Your task to perform on an android device: add a label to a message in the gmail app Image 0: 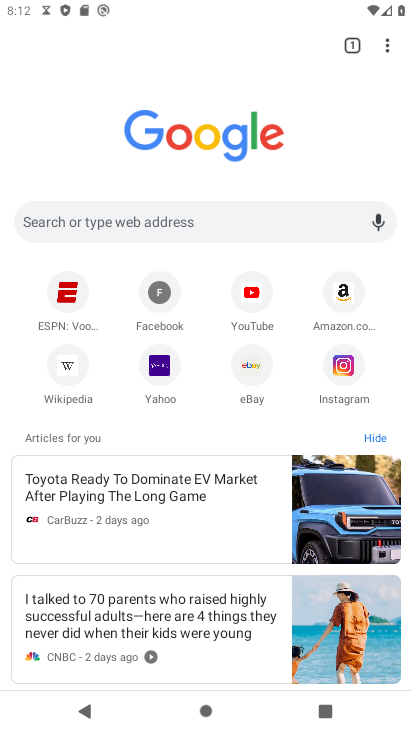
Step 0: press home button
Your task to perform on an android device: add a label to a message in the gmail app Image 1: 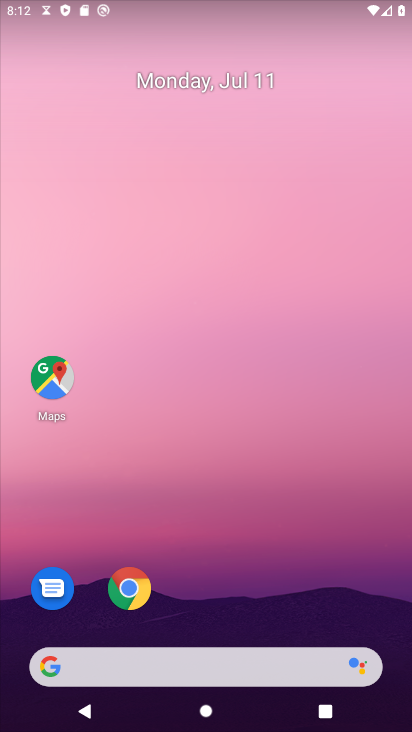
Step 1: drag from (292, 585) to (252, 336)
Your task to perform on an android device: add a label to a message in the gmail app Image 2: 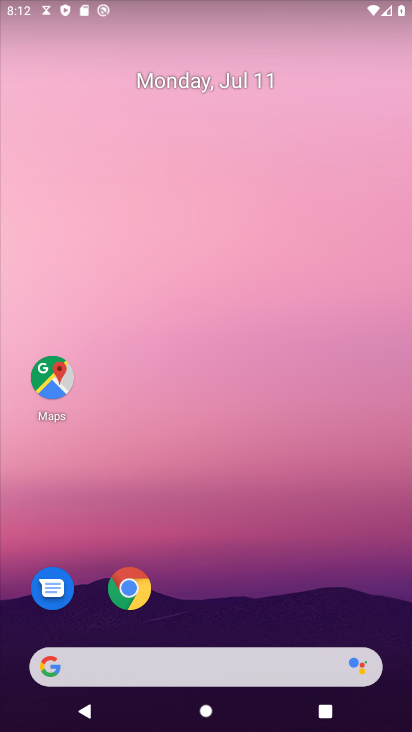
Step 2: drag from (271, 497) to (242, 1)
Your task to perform on an android device: add a label to a message in the gmail app Image 3: 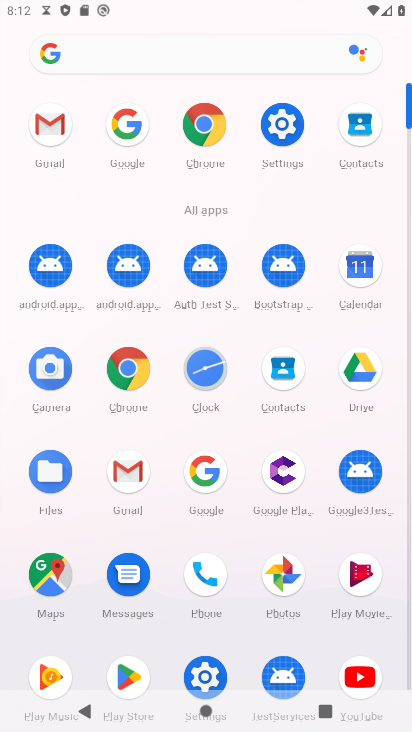
Step 3: click (56, 118)
Your task to perform on an android device: add a label to a message in the gmail app Image 4: 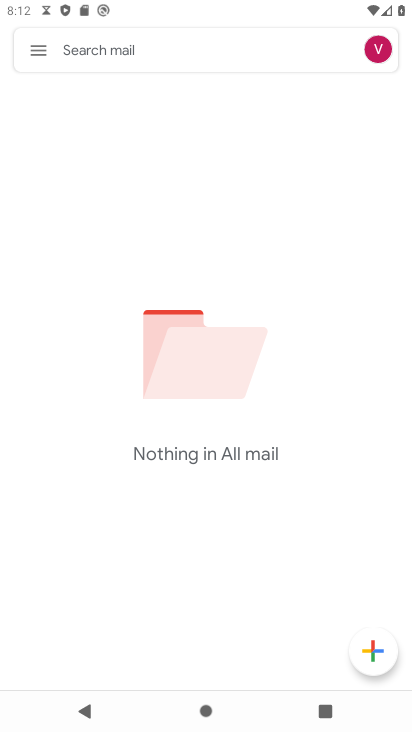
Step 4: click (51, 53)
Your task to perform on an android device: add a label to a message in the gmail app Image 5: 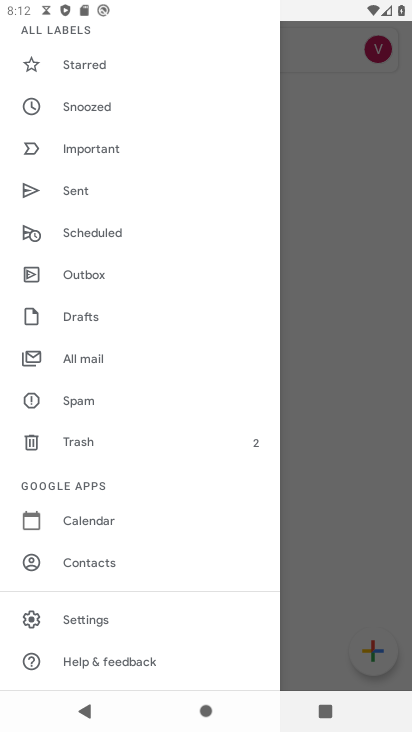
Step 5: click (97, 363)
Your task to perform on an android device: add a label to a message in the gmail app Image 6: 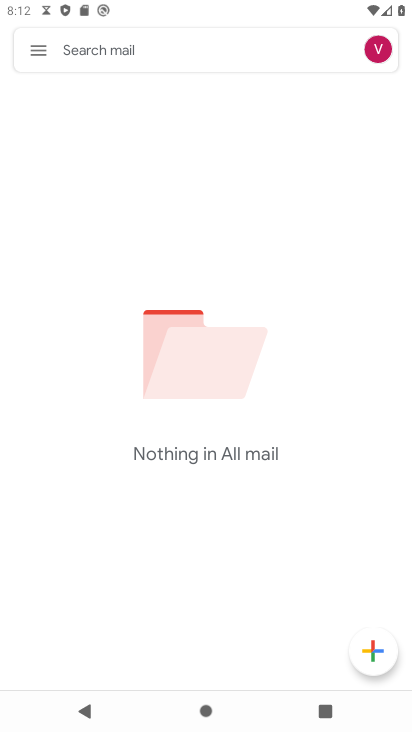
Step 6: task complete